Your task to perform on an android device: allow cookies in the chrome app Image 0: 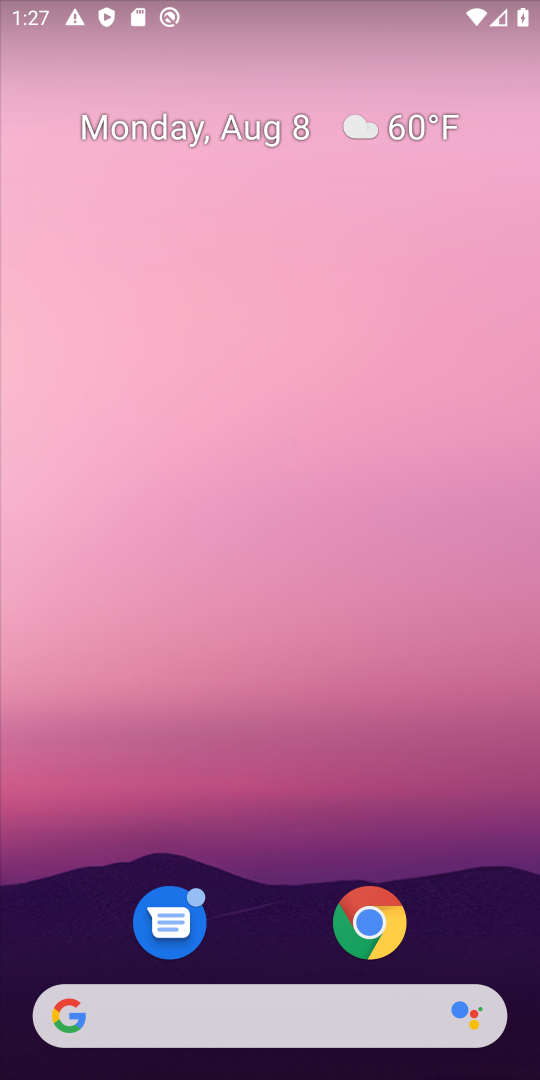
Step 0: drag from (455, 910) to (425, 113)
Your task to perform on an android device: allow cookies in the chrome app Image 1: 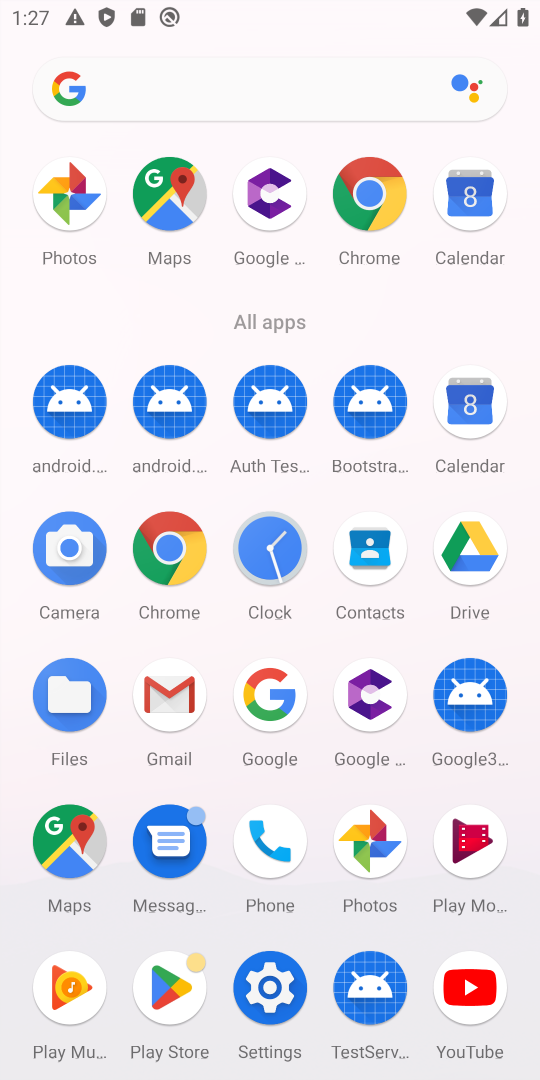
Step 1: click (168, 553)
Your task to perform on an android device: allow cookies in the chrome app Image 2: 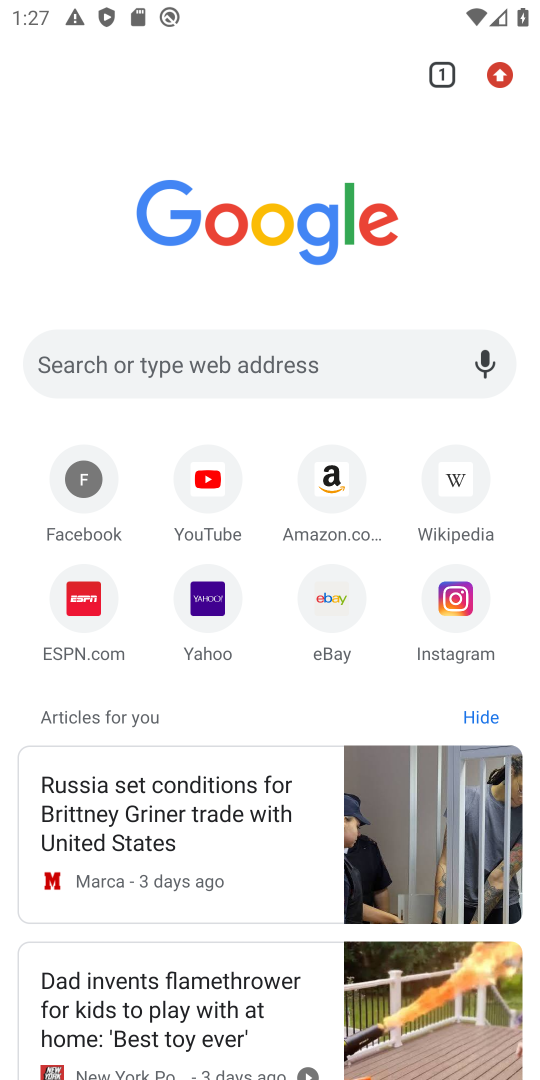
Step 2: drag from (522, 68) to (245, 719)
Your task to perform on an android device: allow cookies in the chrome app Image 3: 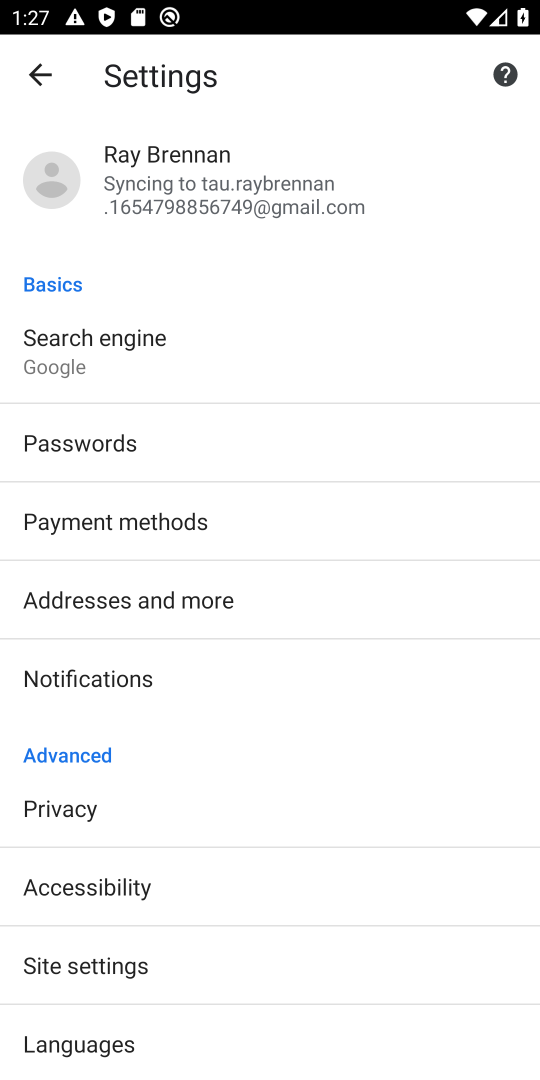
Step 3: click (117, 981)
Your task to perform on an android device: allow cookies in the chrome app Image 4: 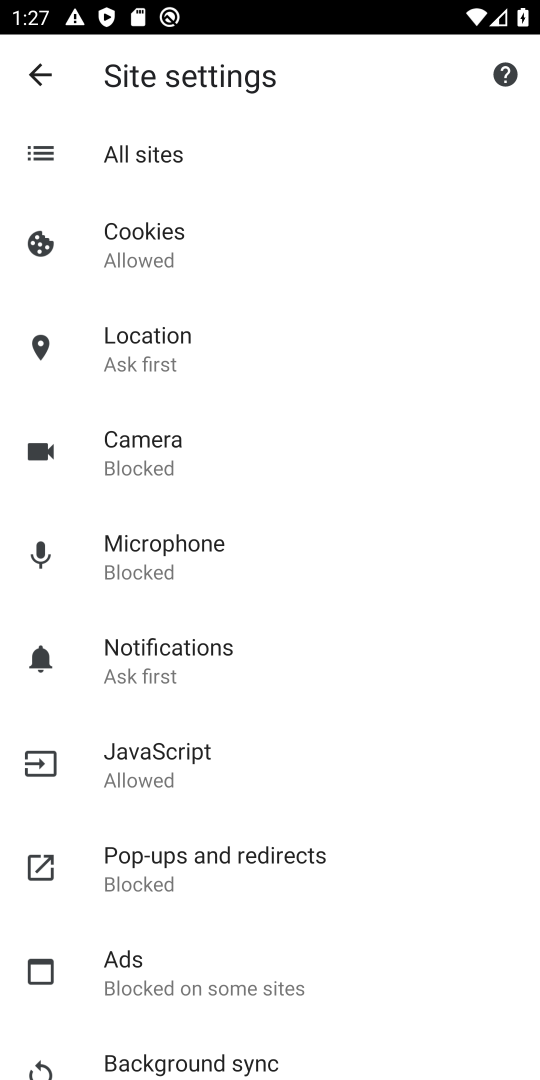
Step 4: click (136, 247)
Your task to perform on an android device: allow cookies in the chrome app Image 5: 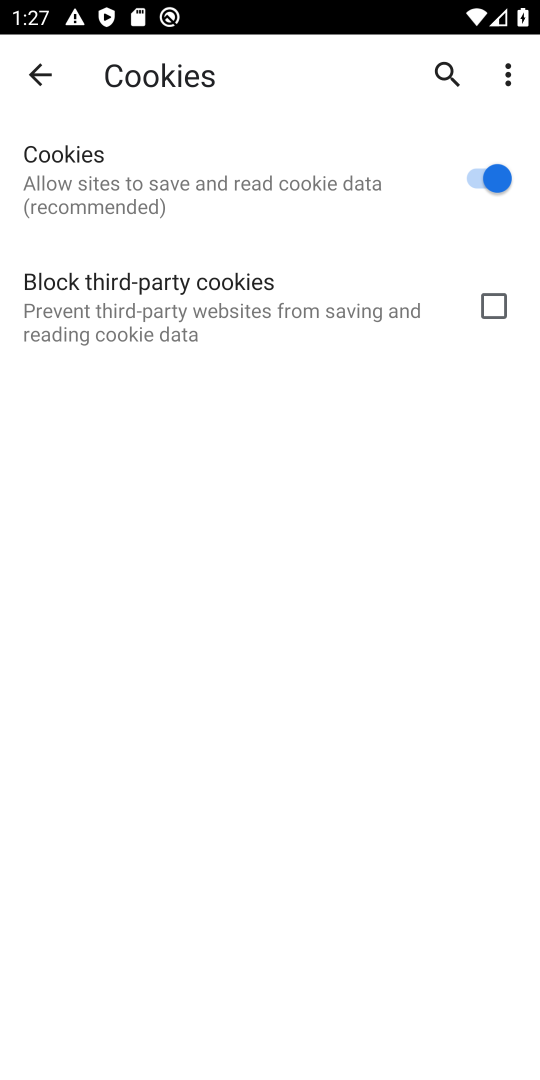
Step 5: click (1, 455)
Your task to perform on an android device: allow cookies in the chrome app Image 6: 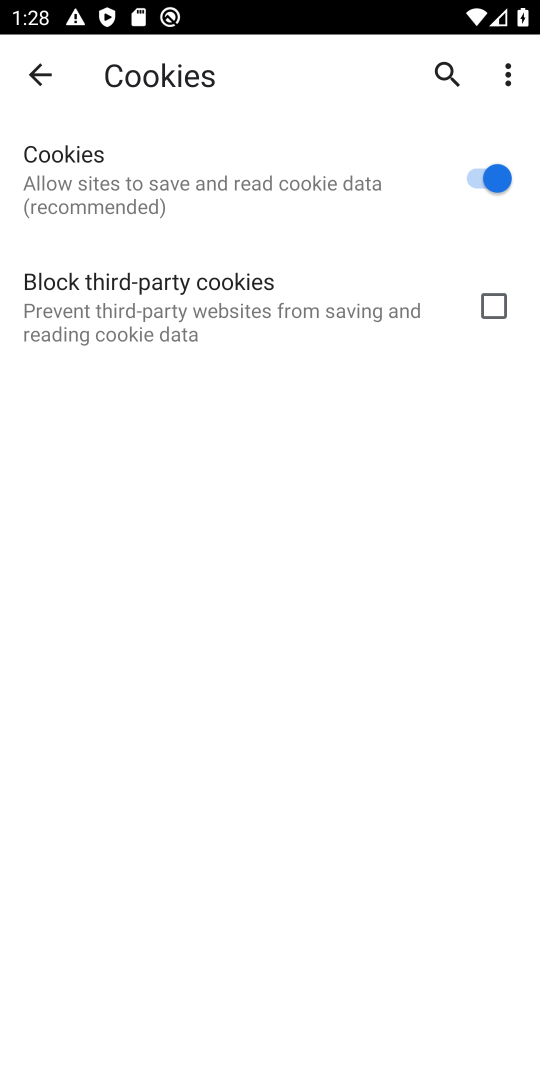
Step 6: task complete